Your task to perform on an android device: Open accessibility settings Image 0: 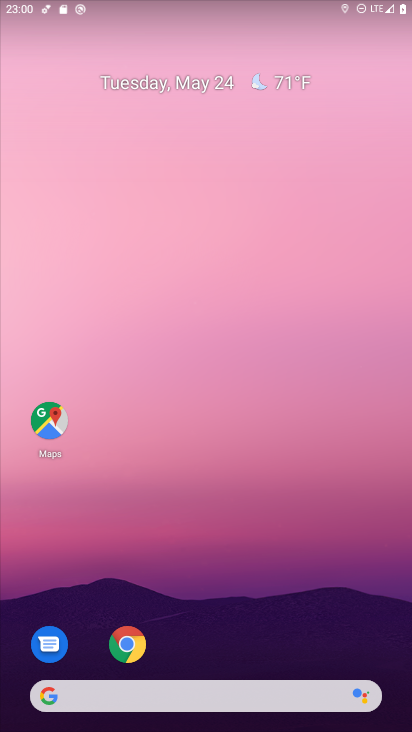
Step 0: drag from (233, 542) to (232, 170)
Your task to perform on an android device: Open accessibility settings Image 1: 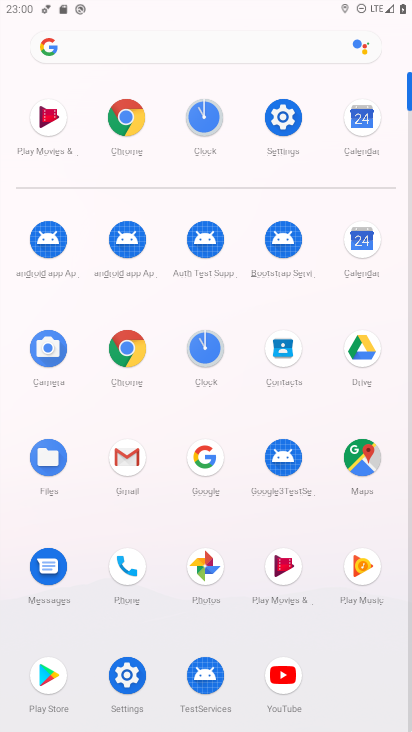
Step 1: click (275, 119)
Your task to perform on an android device: Open accessibility settings Image 2: 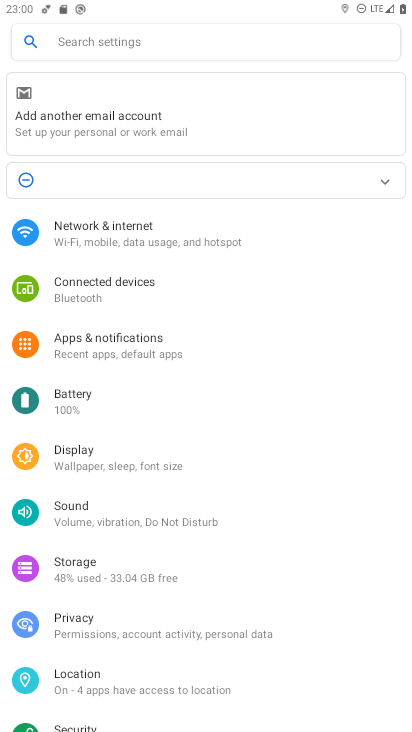
Step 2: drag from (250, 566) to (246, 345)
Your task to perform on an android device: Open accessibility settings Image 3: 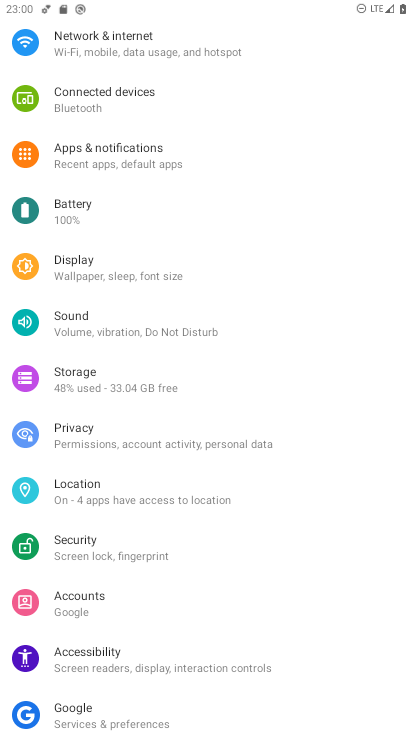
Step 3: click (86, 644)
Your task to perform on an android device: Open accessibility settings Image 4: 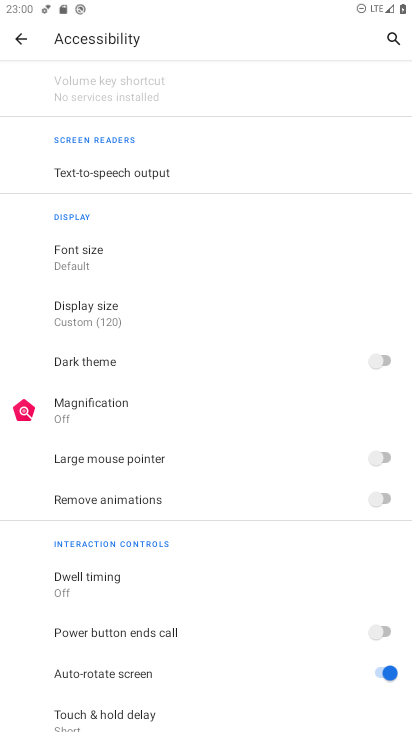
Step 4: task complete